Your task to perform on an android device: uninstall "Instagram" Image 0: 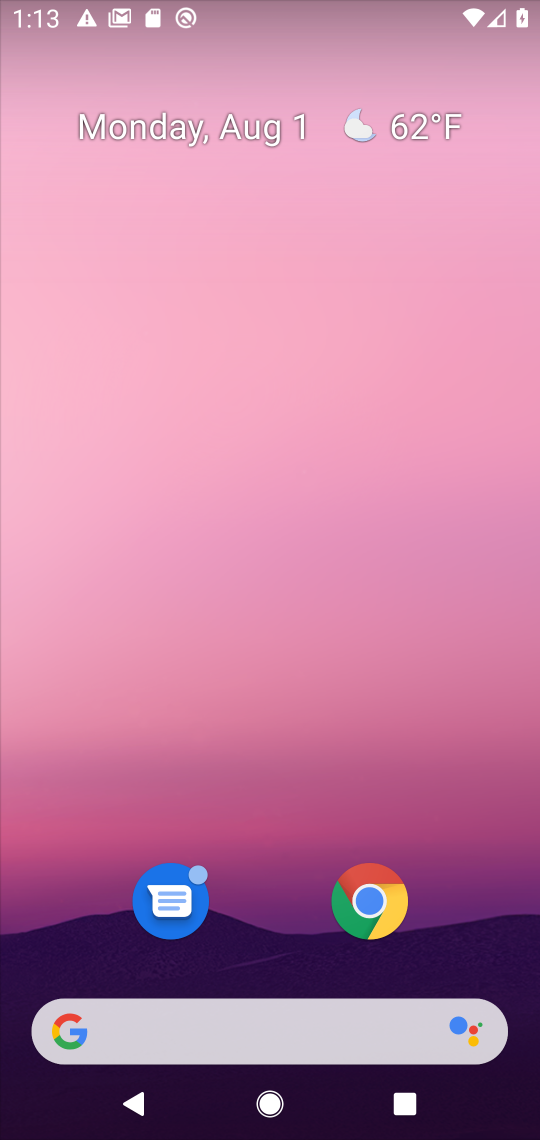
Step 0: drag from (231, 1031) to (108, 324)
Your task to perform on an android device: uninstall "Instagram" Image 1: 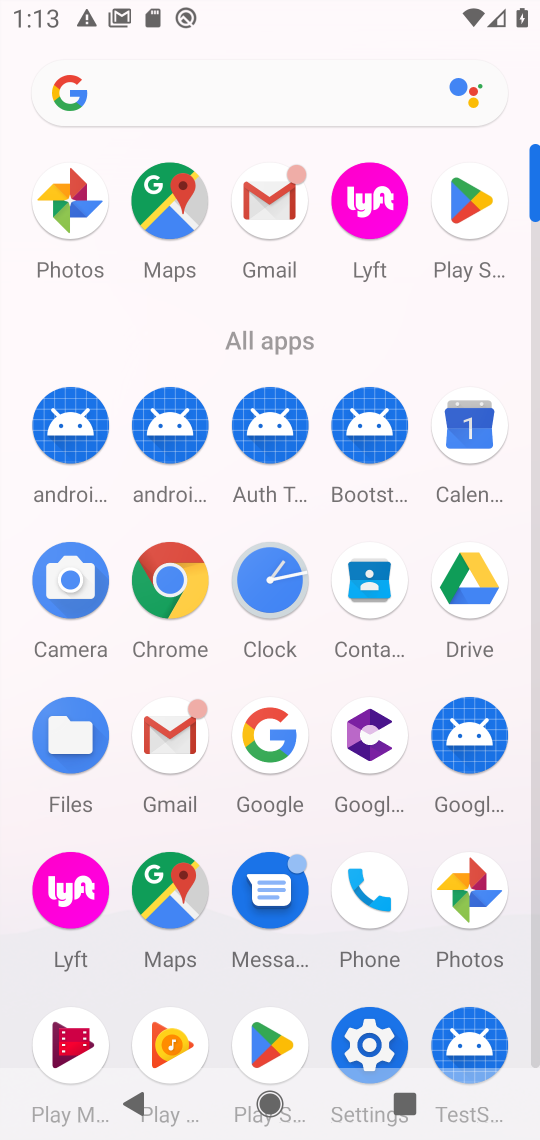
Step 1: click (473, 175)
Your task to perform on an android device: uninstall "Instagram" Image 2: 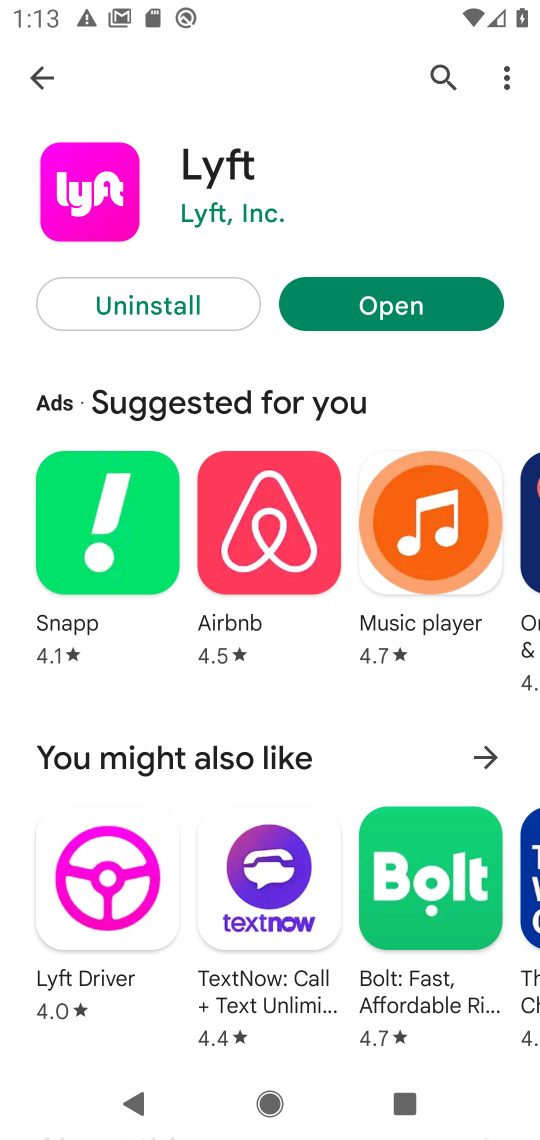
Step 2: click (428, 79)
Your task to perform on an android device: uninstall "Instagram" Image 3: 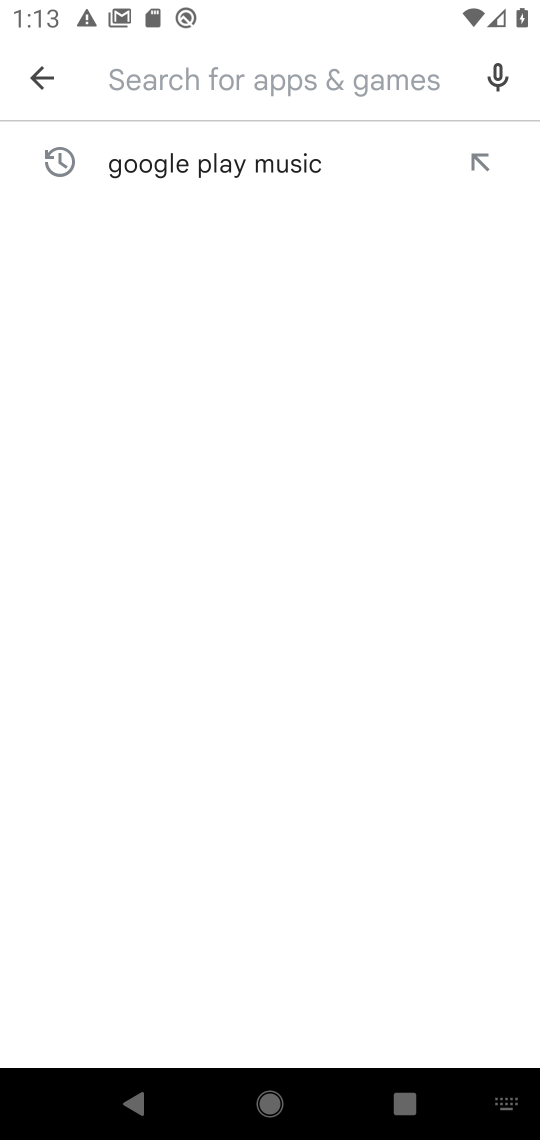
Step 3: type "Instagram"
Your task to perform on an android device: uninstall "Instagram" Image 4: 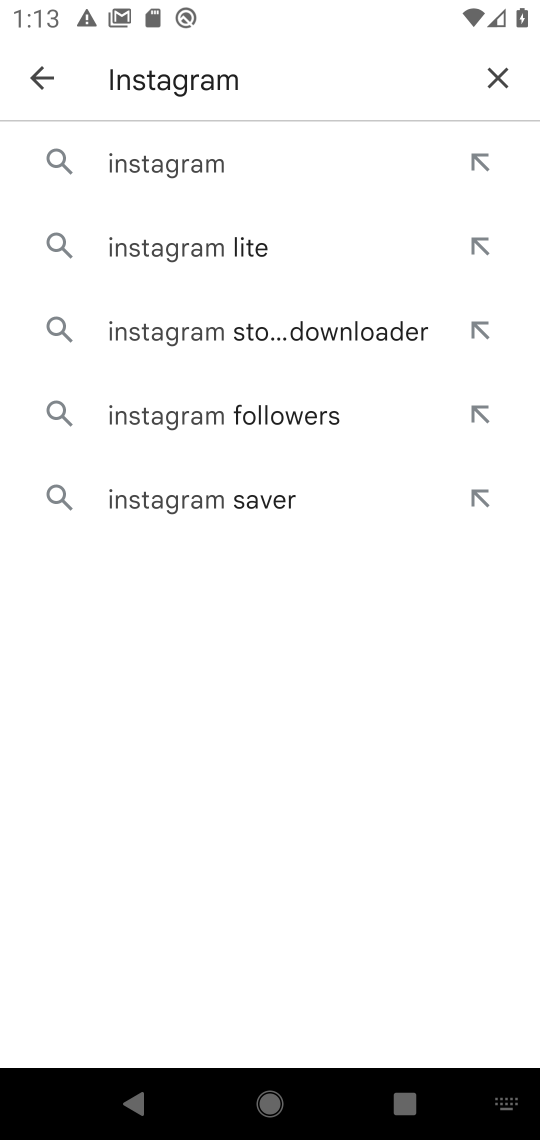
Step 4: click (208, 163)
Your task to perform on an android device: uninstall "Instagram" Image 5: 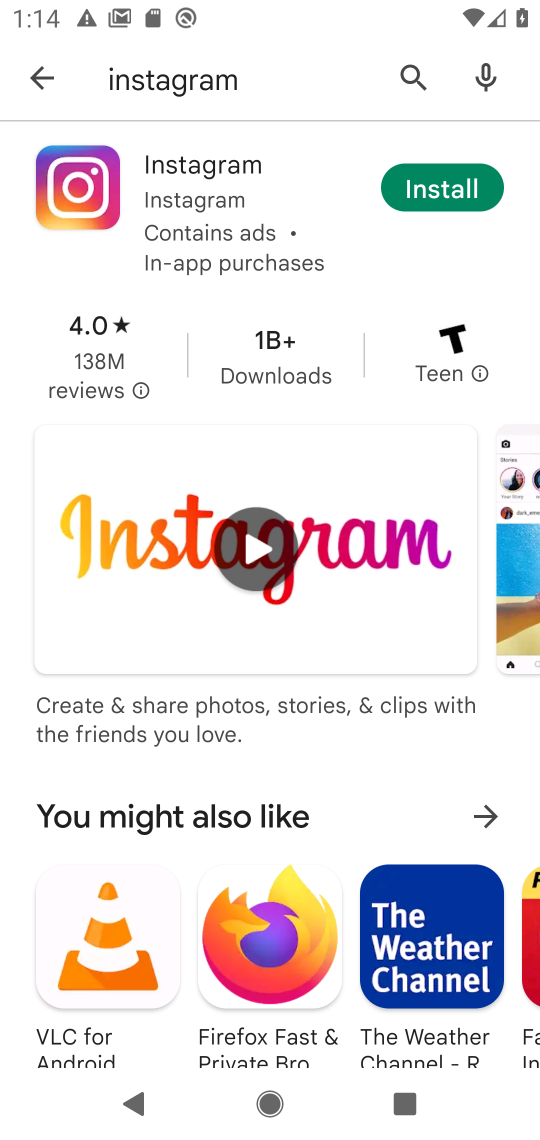
Step 5: task complete